Your task to perform on an android device: open app "Grab" Image 0: 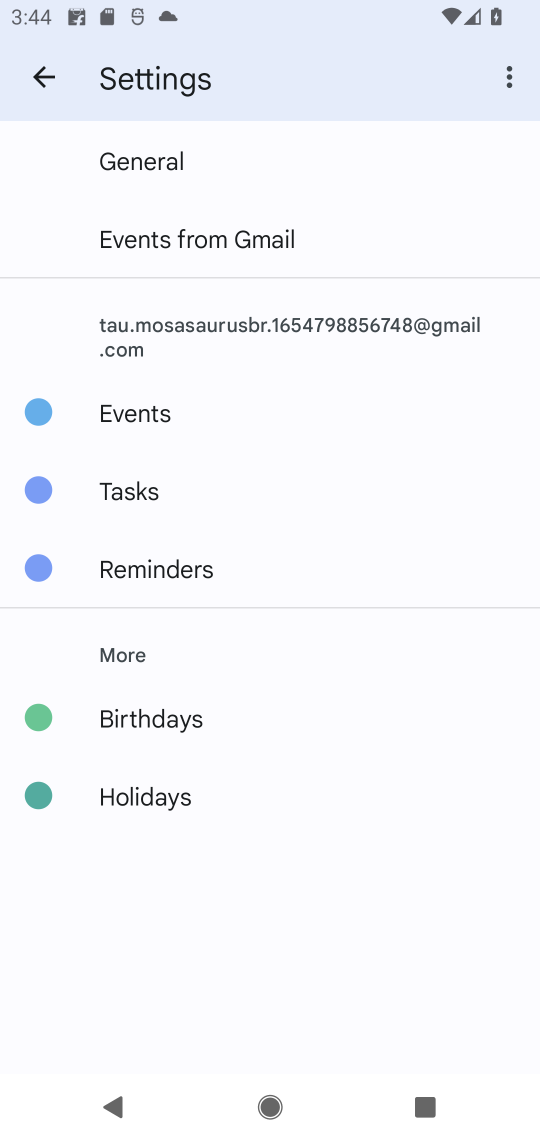
Step 0: press home button
Your task to perform on an android device: open app "Grab" Image 1: 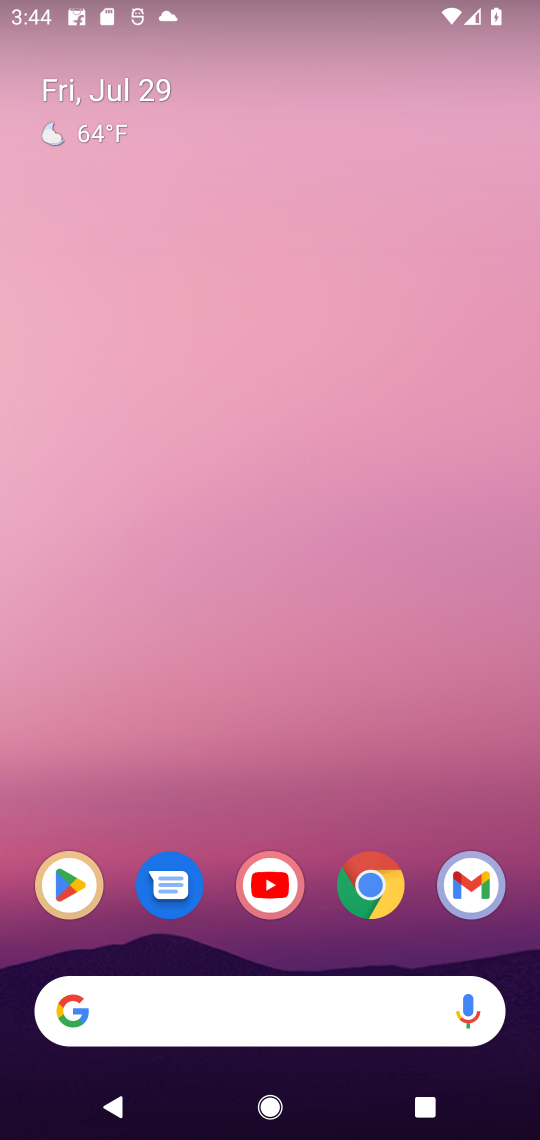
Step 1: click (93, 870)
Your task to perform on an android device: open app "Grab" Image 2: 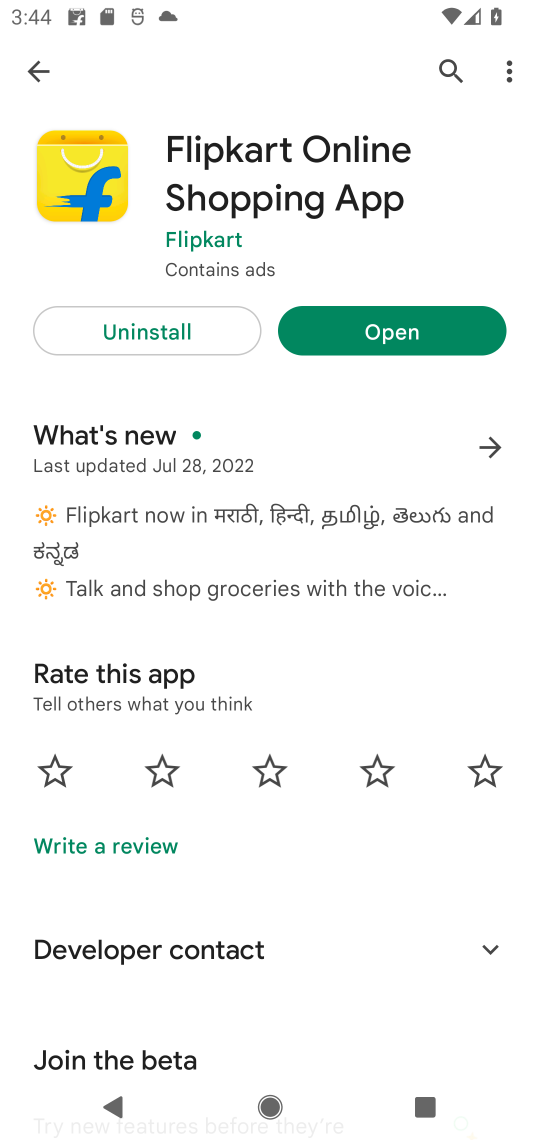
Step 2: click (451, 72)
Your task to perform on an android device: open app "Grab" Image 3: 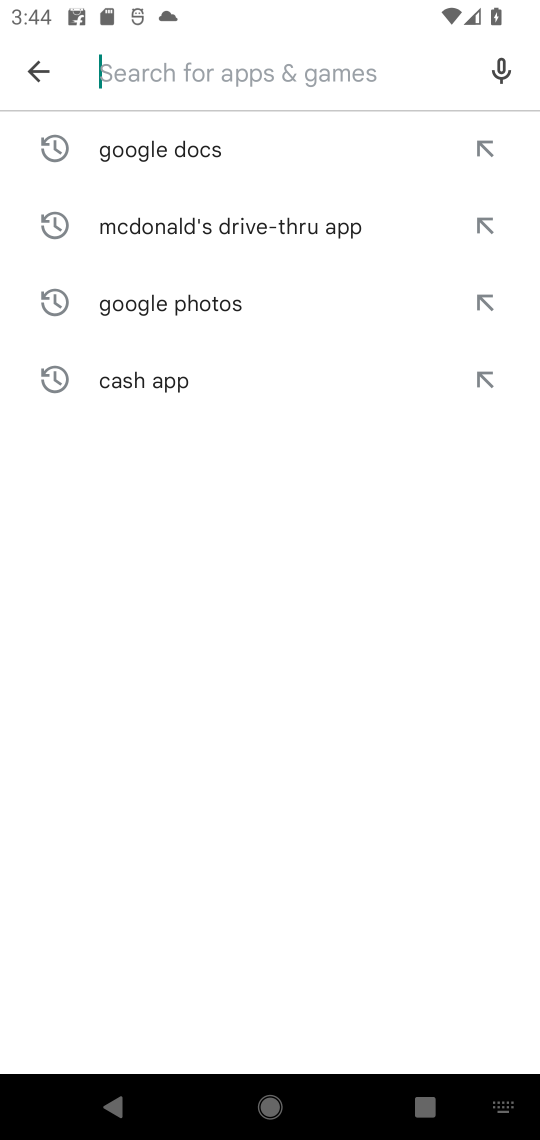
Step 3: type "Grab"
Your task to perform on an android device: open app "Grab" Image 4: 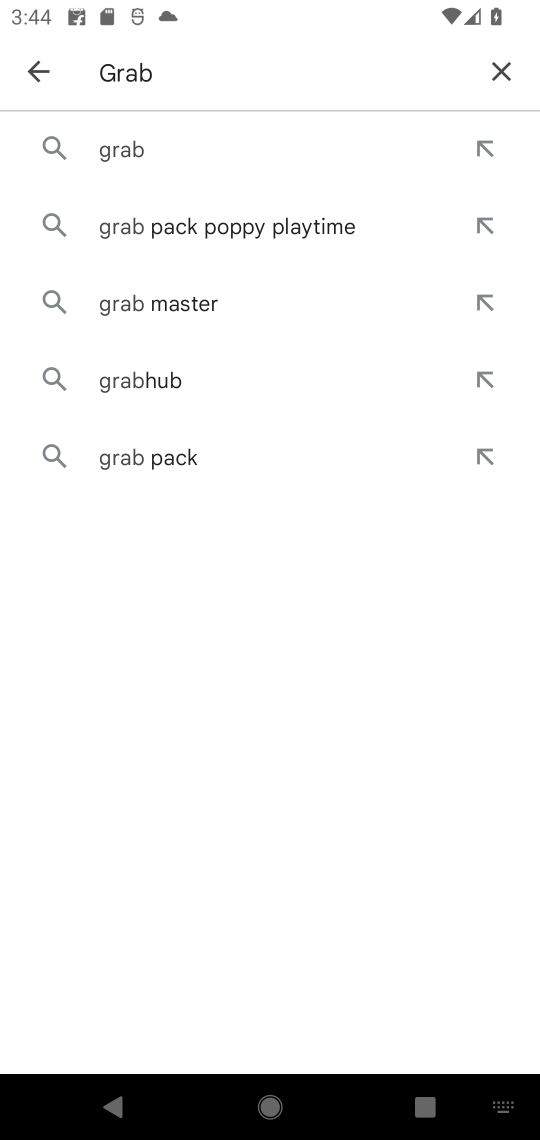
Step 4: click (215, 142)
Your task to perform on an android device: open app "Grab" Image 5: 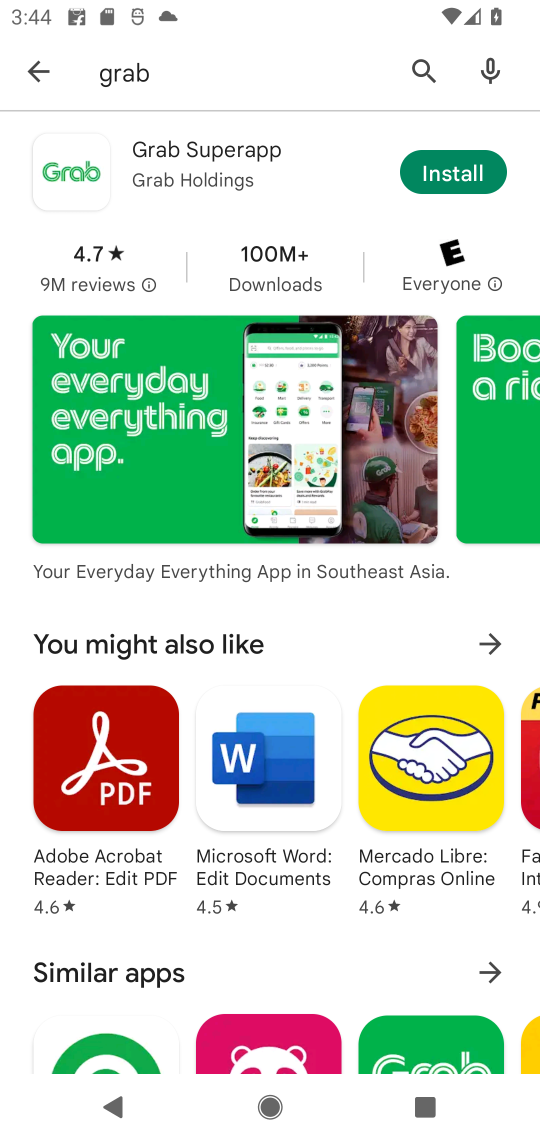
Step 5: task complete